Your task to perform on an android device: Go to Maps Image 0: 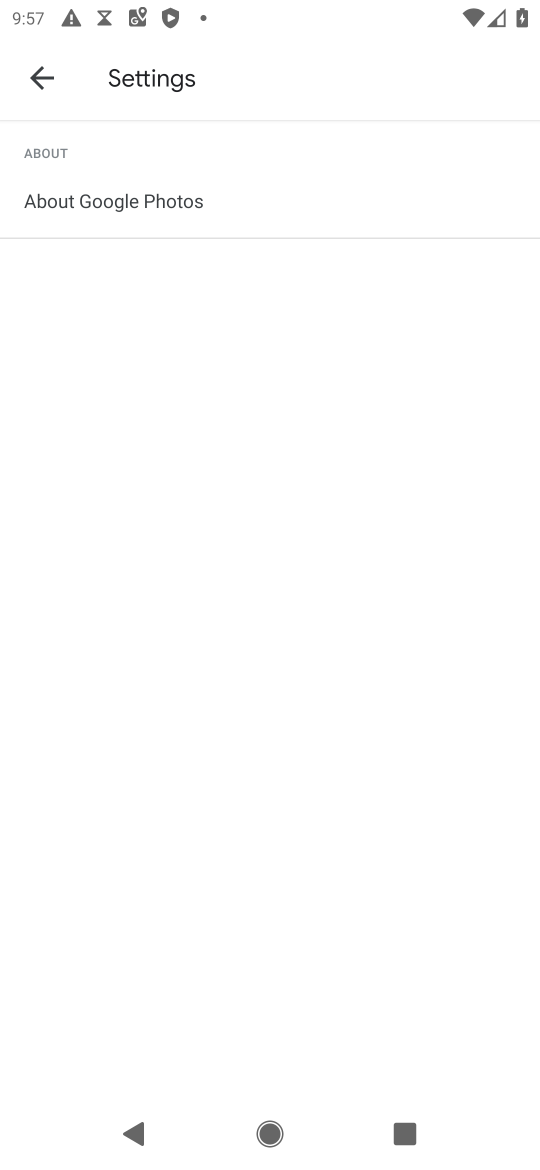
Step 0: press home button
Your task to perform on an android device: Go to Maps Image 1: 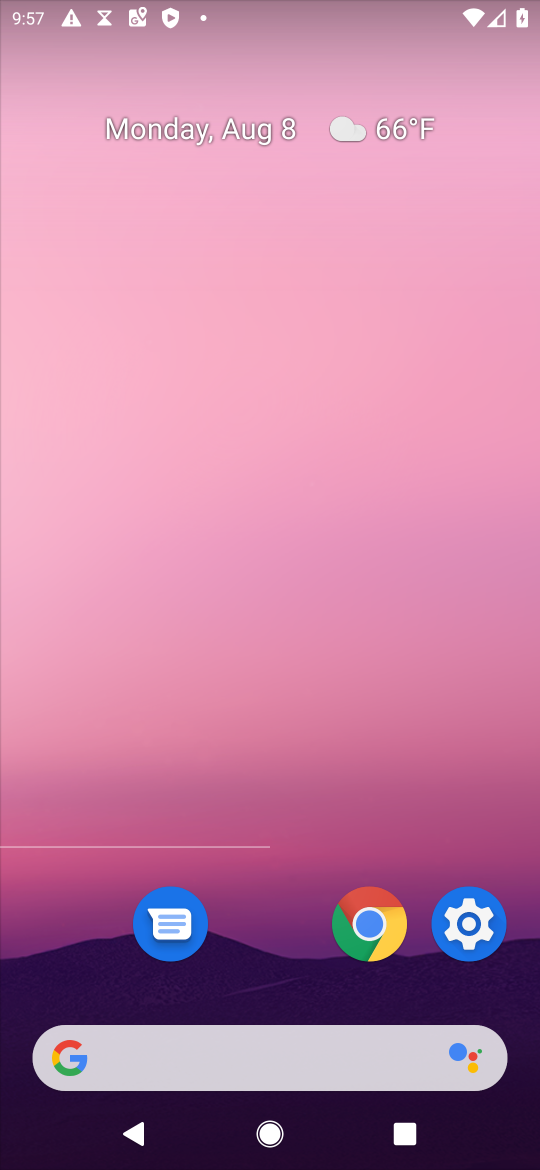
Step 1: drag from (282, 951) to (362, 175)
Your task to perform on an android device: Go to Maps Image 2: 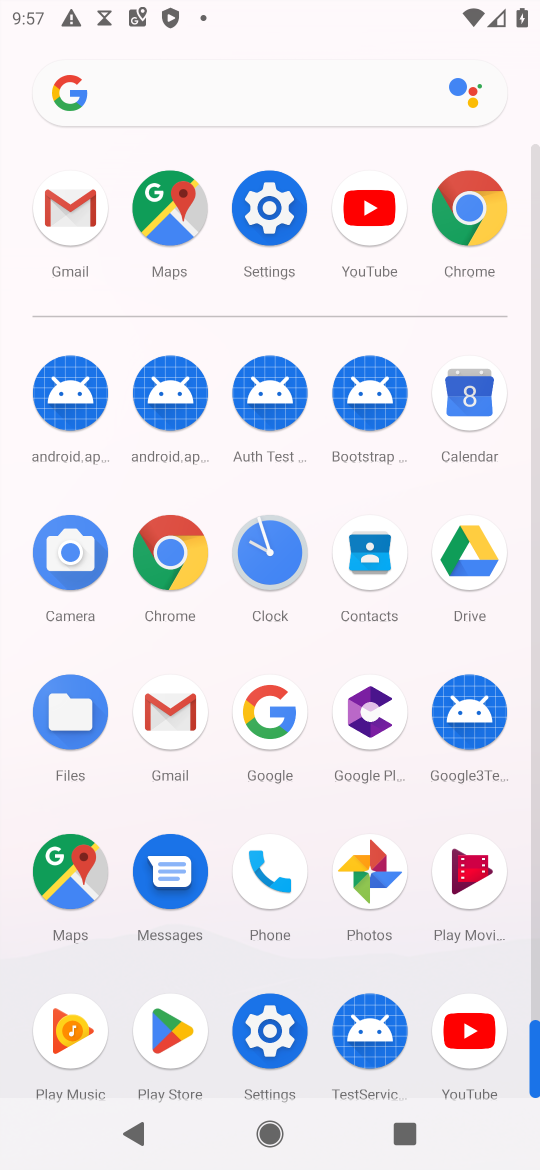
Step 2: click (74, 872)
Your task to perform on an android device: Go to Maps Image 3: 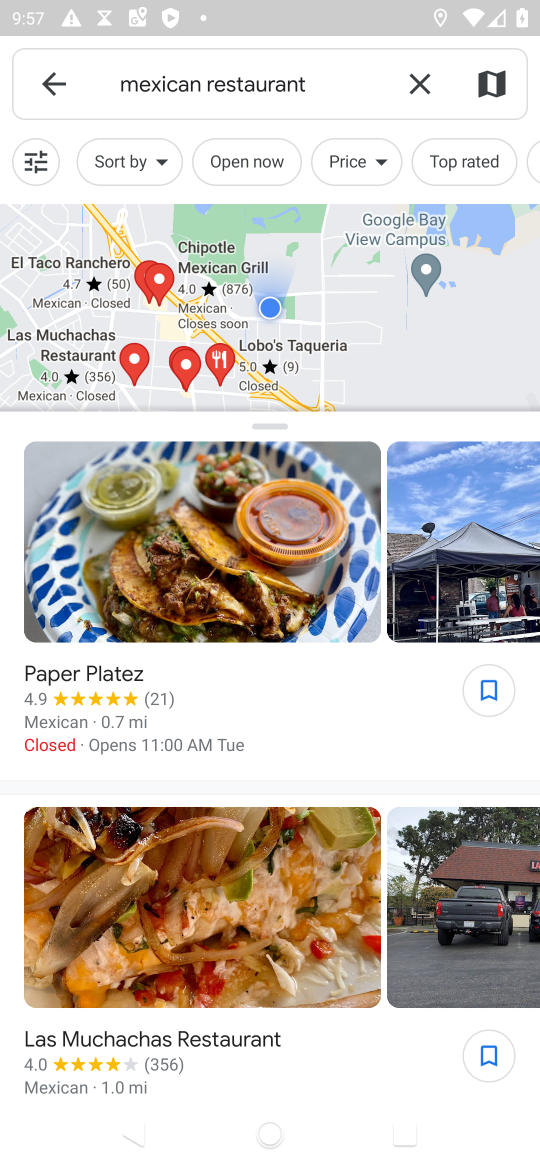
Step 3: click (54, 72)
Your task to perform on an android device: Go to Maps Image 4: 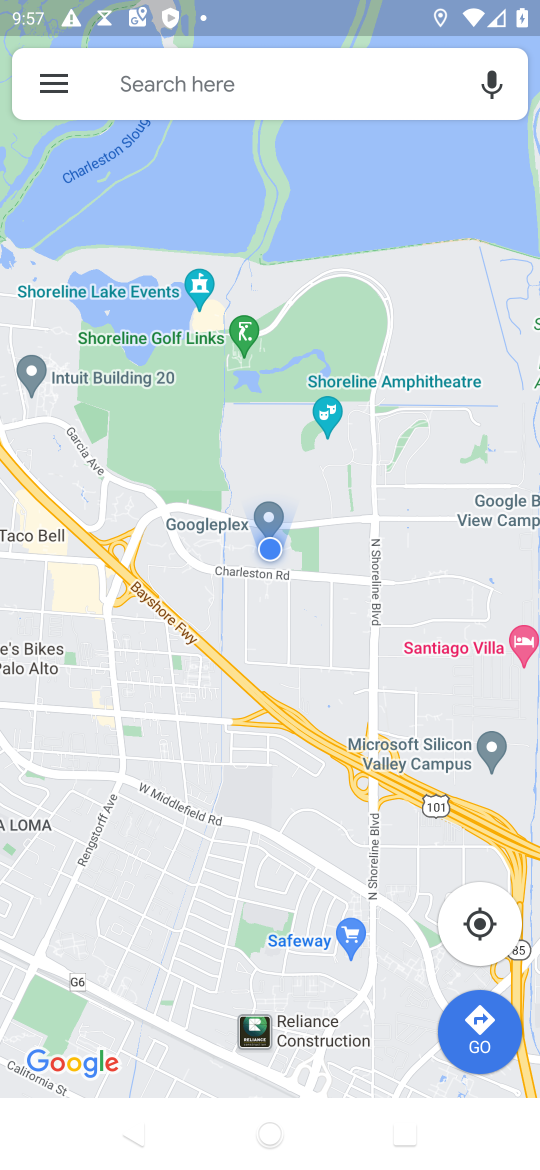
Step 4: task complete